Your task to perform on an android device: What's the weather? Image 0: 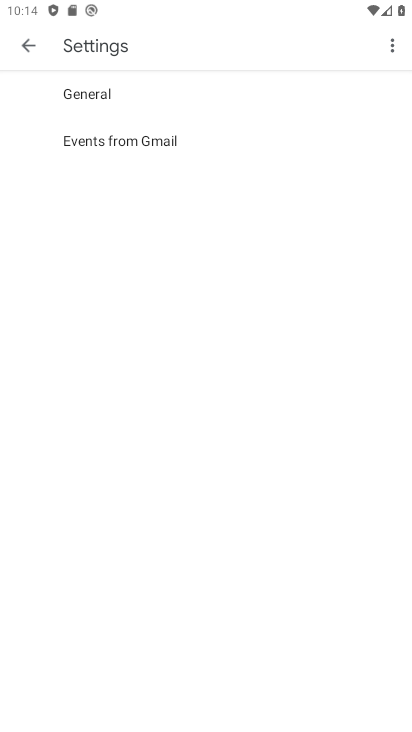
Step 0: press home button
Your task to perform on an android device: What's the weather? Image 1: 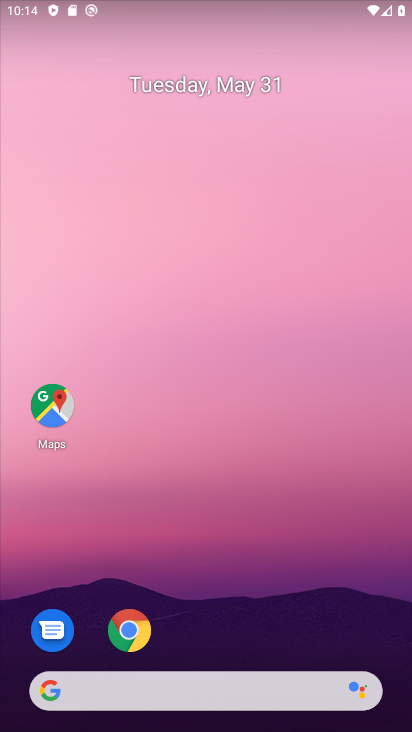
Step 1: click (130, 624)
Your task to perform on an android device: What's the weather? Image 2: 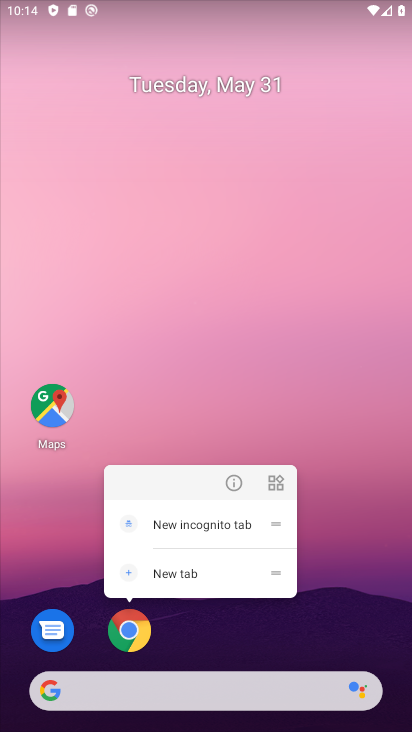
Step 2: click (129, 633)
Your task to perform on an android device: What's the weather? Image 3: 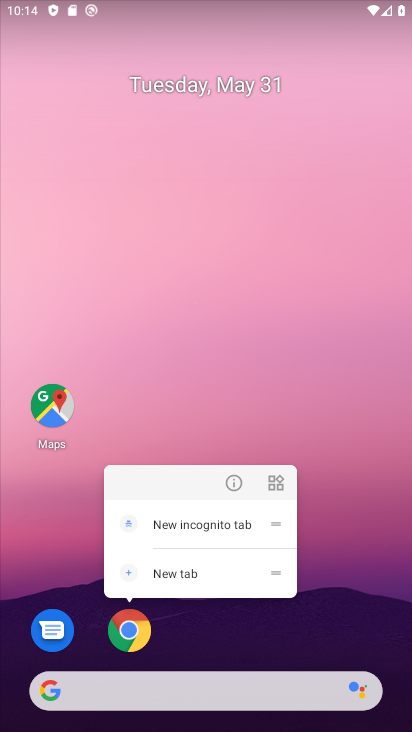
Step 3: click (125, 631)
Your task to perform on an android device: What's the weather? Image 4: 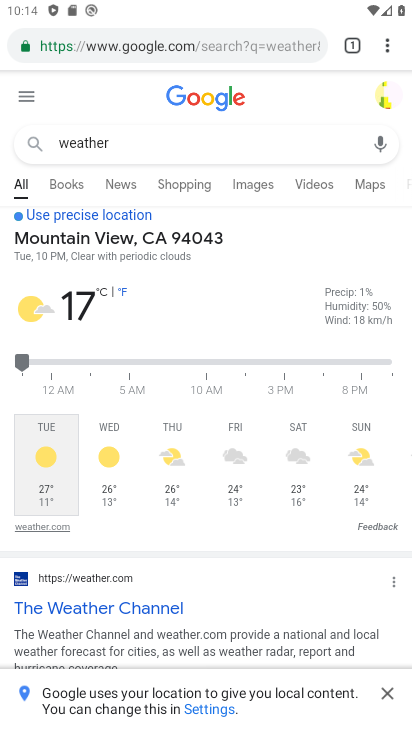
Step 4: task complete